Your task to perform on an android device: install app "Move to iOS" Image 0: 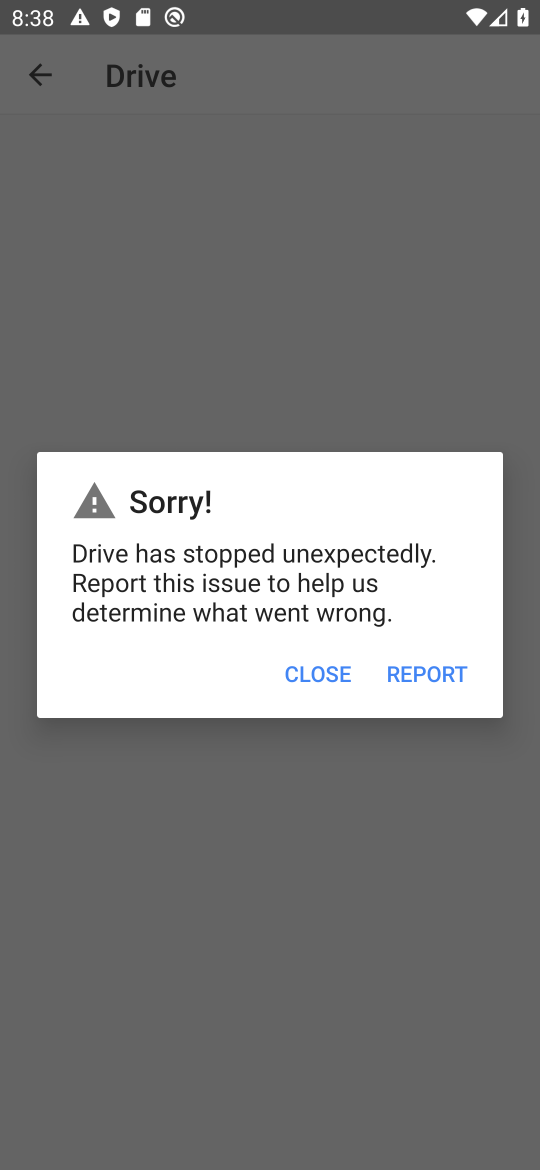
Step 0: press home button
Your task to perform on an android device: install app "Move to iOS" Image 1: 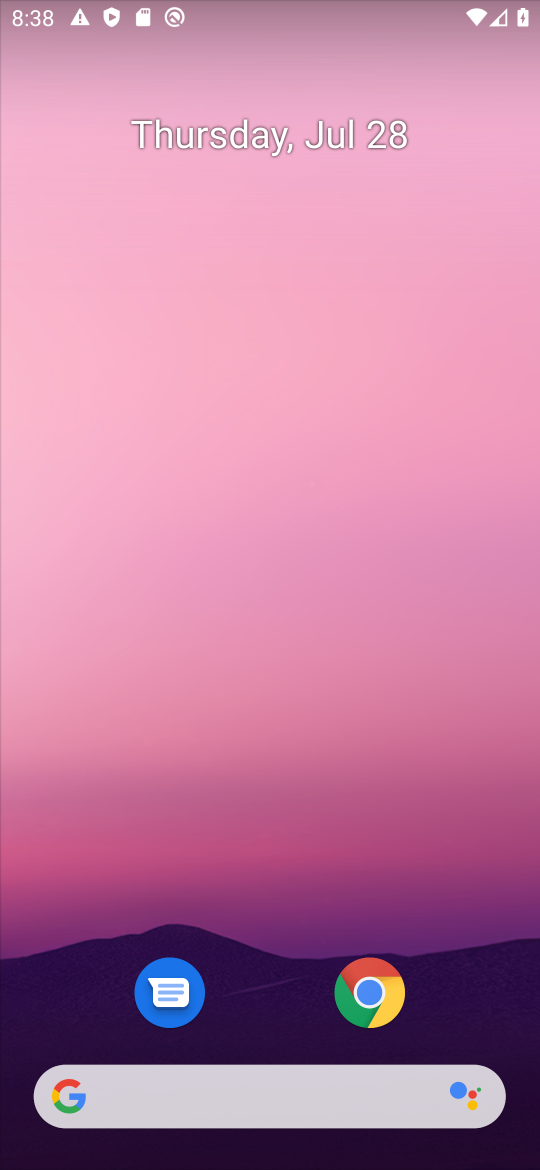
Step 1: drag from (289, 812) to (288, 52)
Your task to perform on an android device: install app "Move to iOS" Image 2: 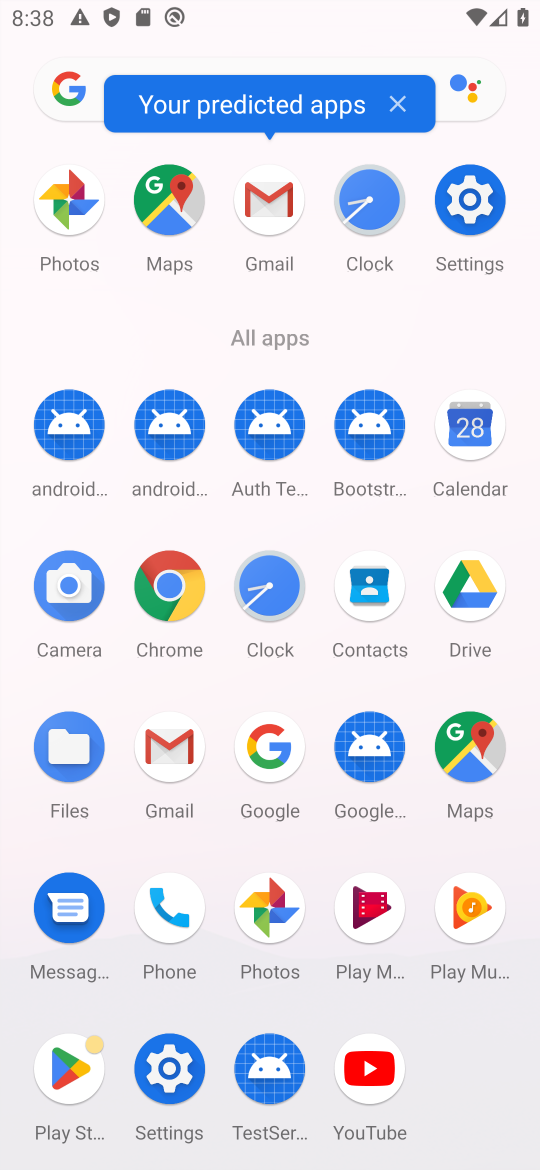
Step 2: drag from (238, 802) to (264, 410)
Your task to perform on an android device: install app "Move to iOS" Image 3: 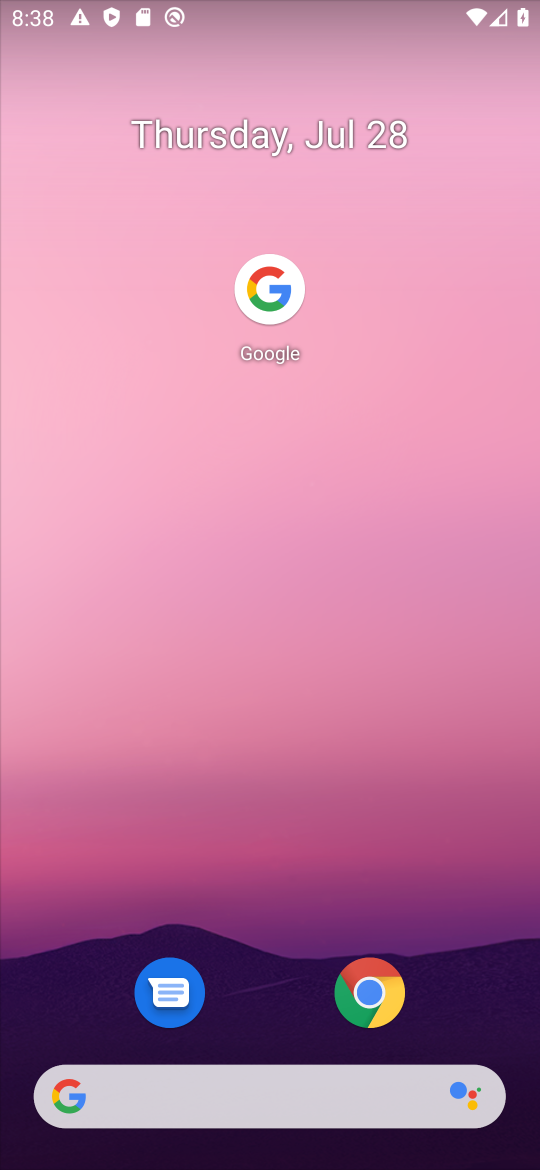
Step 3: press home button
Your task to perform on an android device: install app "Move to iOS" Image 4: 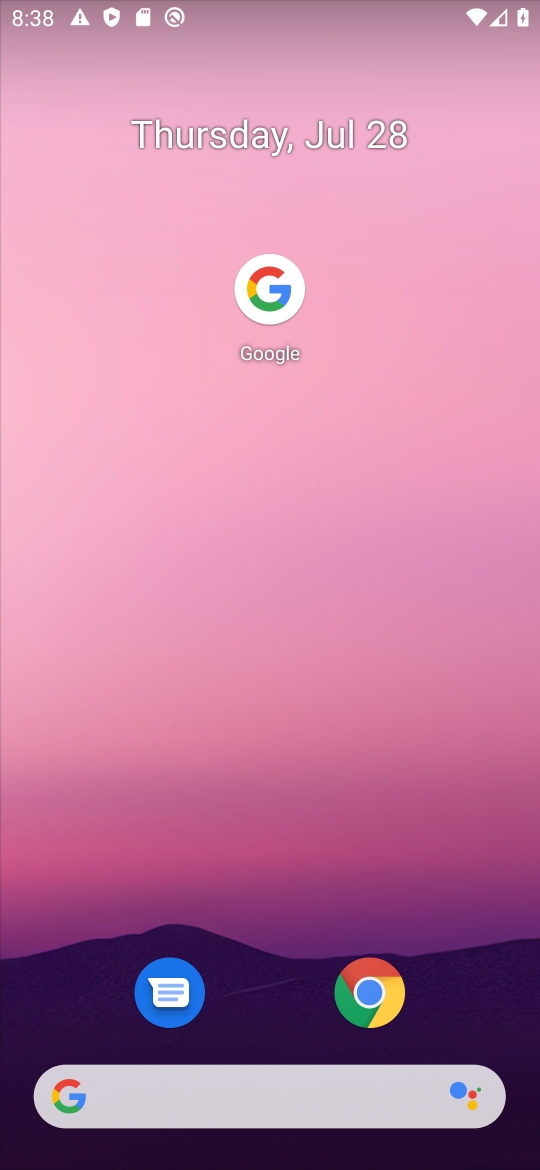
Step 4: drag from (251, 957) to (317, 147)
Your task to perform on an android device: install app "Move to iOS" Image 5: 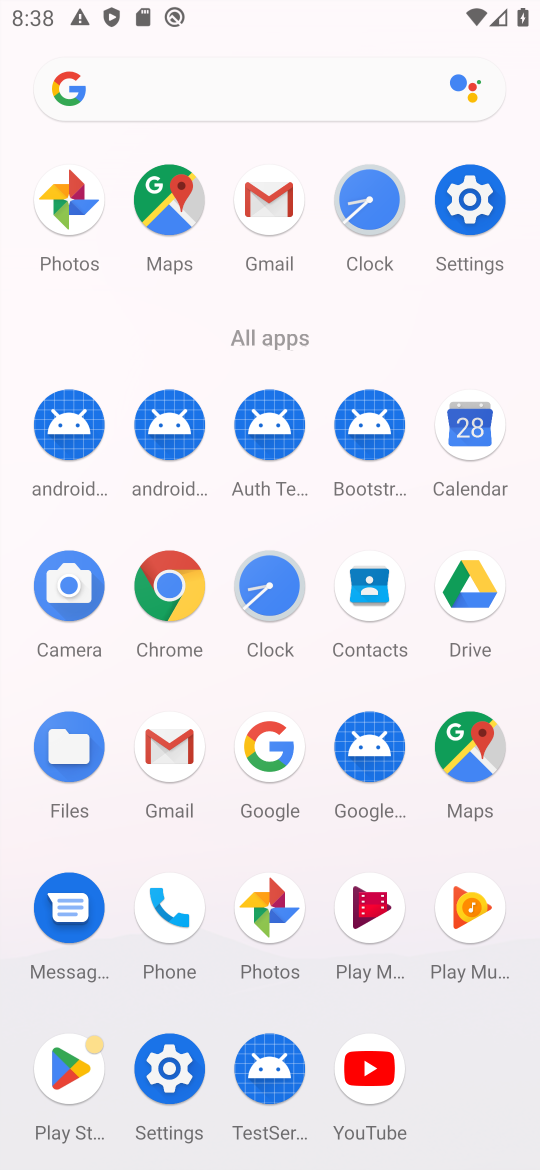
Step 5: click (76, 1061)
Your task to perform on an android device: install app "Move to iOS" Image 6: 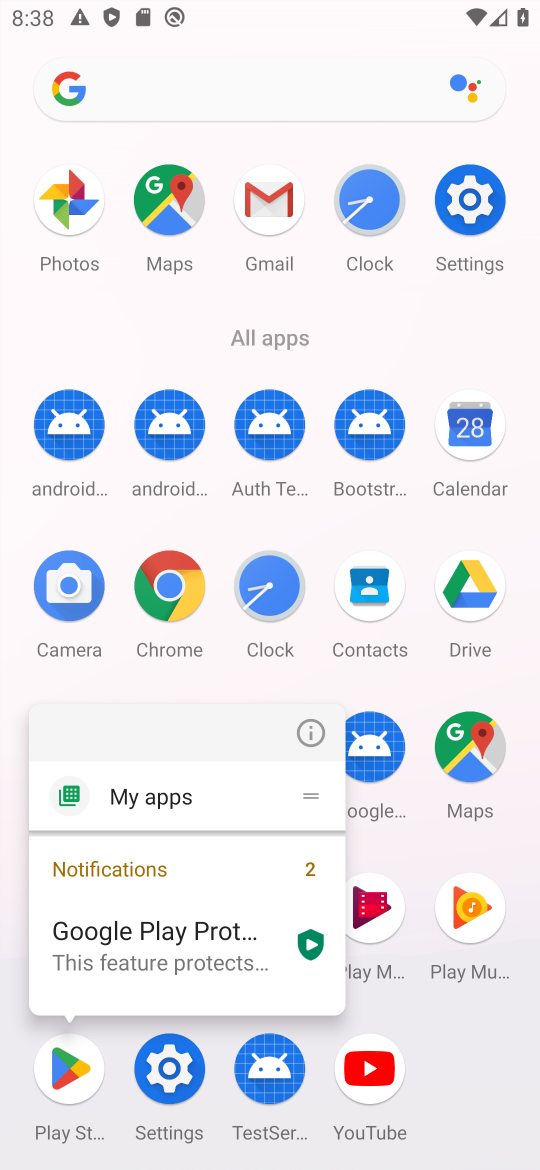
Step 6: click (74, 1064)
Your task to perform on an android device: install app "Move to iOS" Image 7: 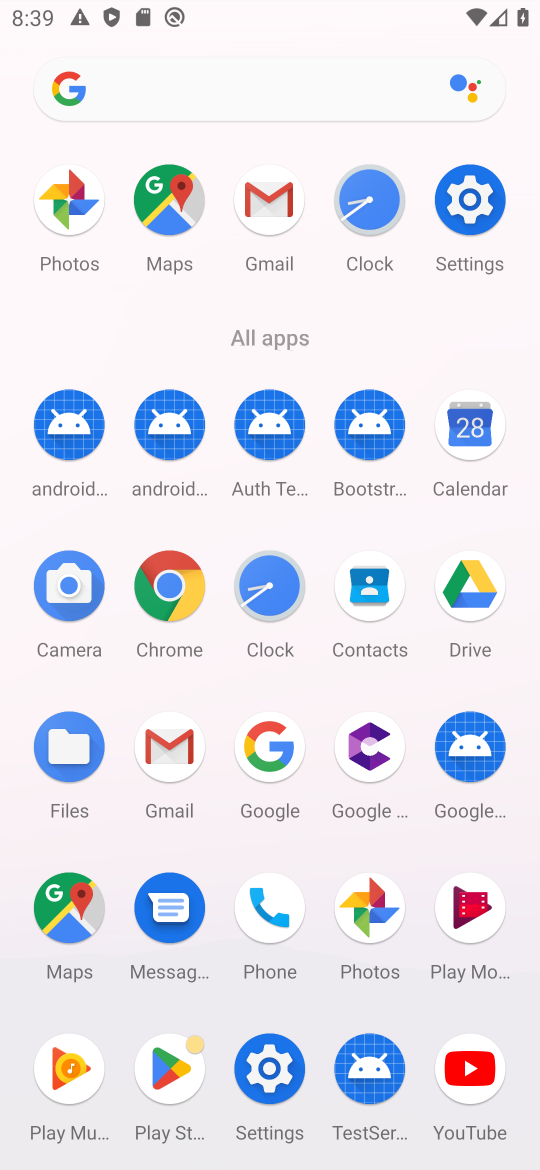
Step 7: click (182, 1068)
Your task to perform on an android device: install app "Move to iOS" Image 8: 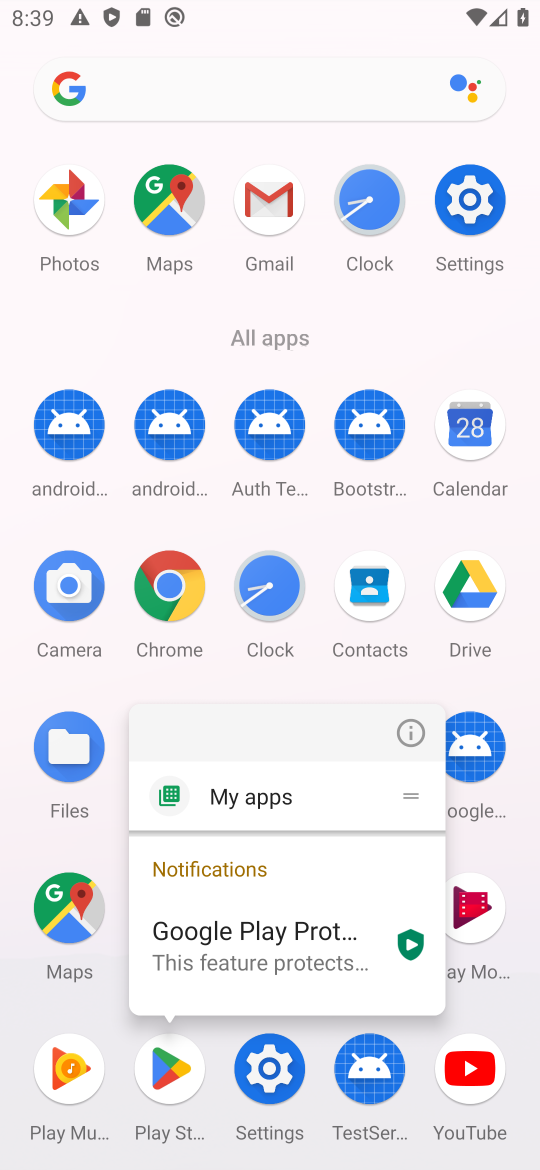
Step 8: click (182, 1068)
Your task to perform on an android device: install app "Move to iOS" Image 9: 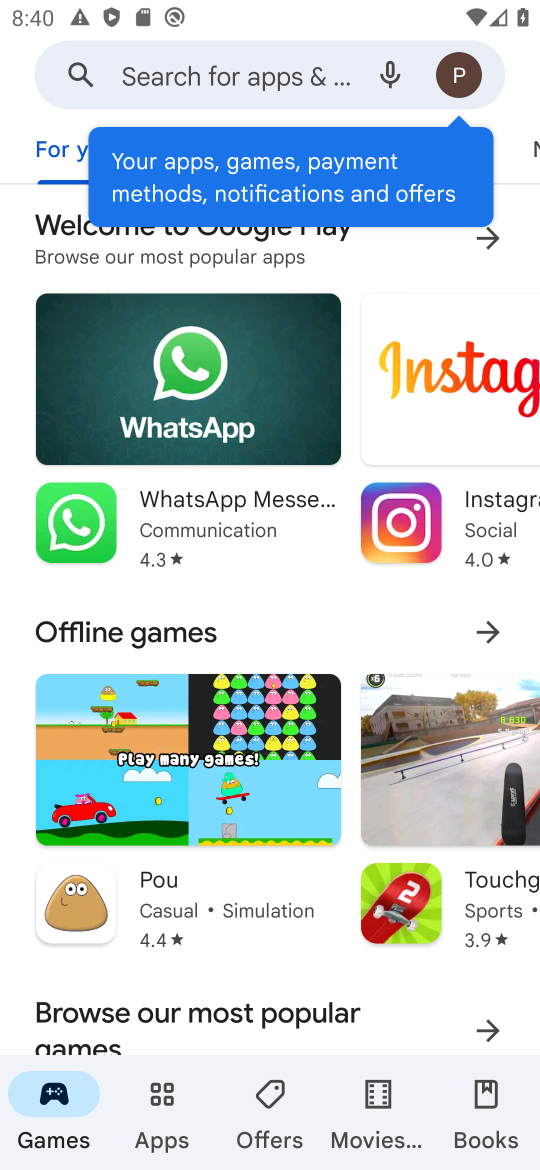
Step 9: click (296, 65)
Your task to perform on an android device: install app "Move to iOS" Image 10: 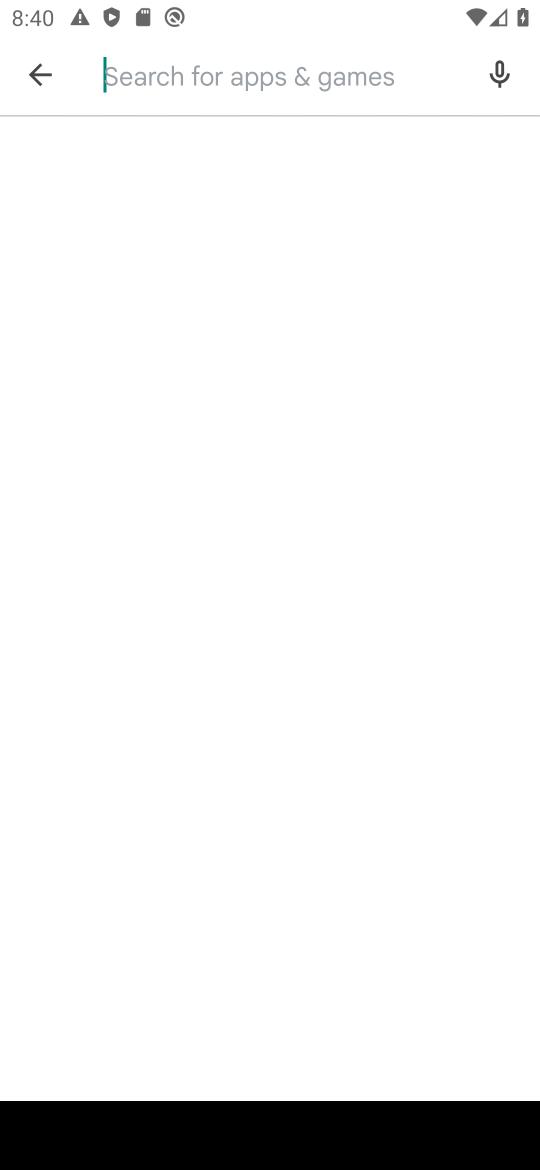
Step 10: type "move to ios"
Your task to perform on an android device: install app "Move to iOS" Image 11: 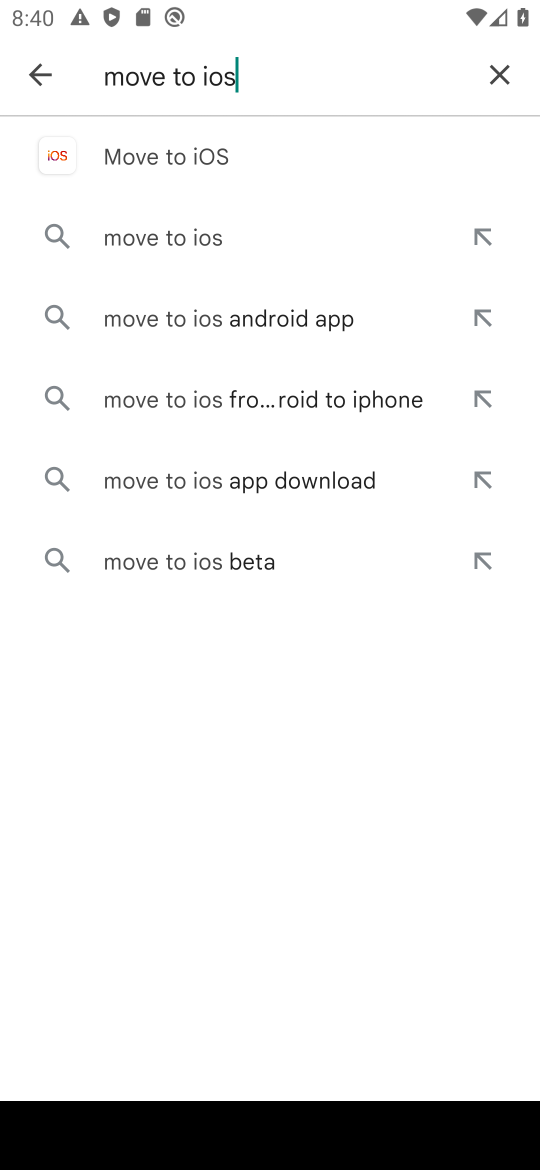
Step 11: click (215, 157)
Your task to perform on an android device: install app "Move to iOS" Image 12: 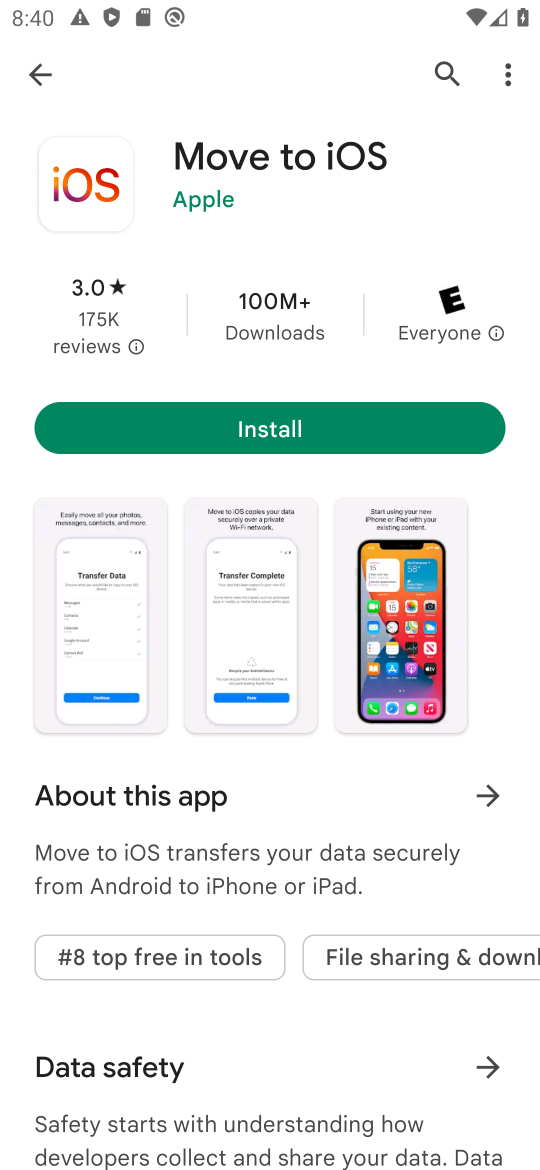
Step 12: click (364, 423)
Your task to perform on an android device: install app "Move to iOS" Image 13: 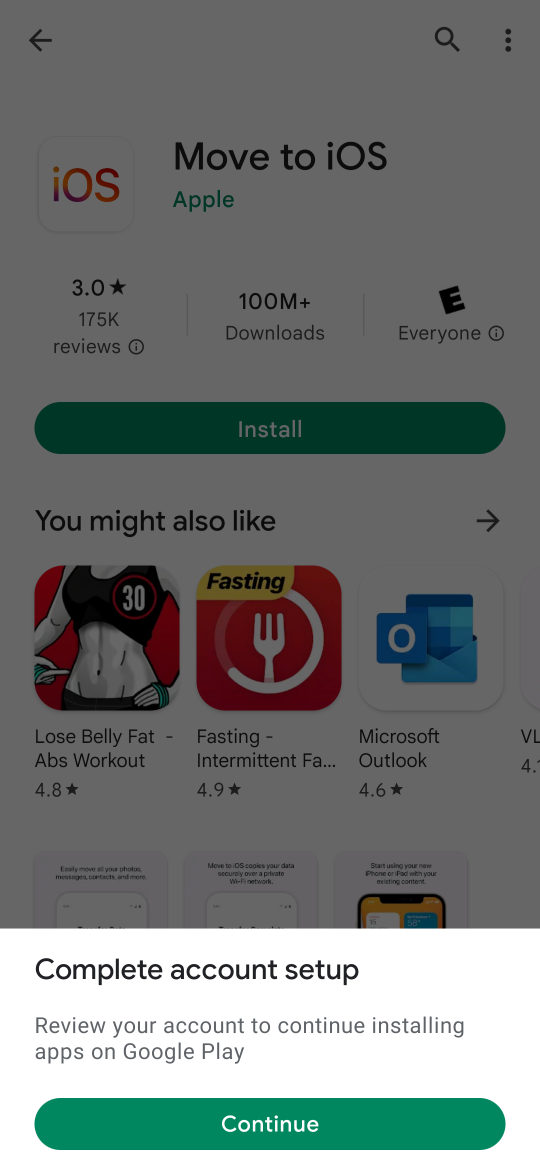
Step 13: click (464, 1130)
Your task to perform on an android device: install app "Move to iOS" Image 14: 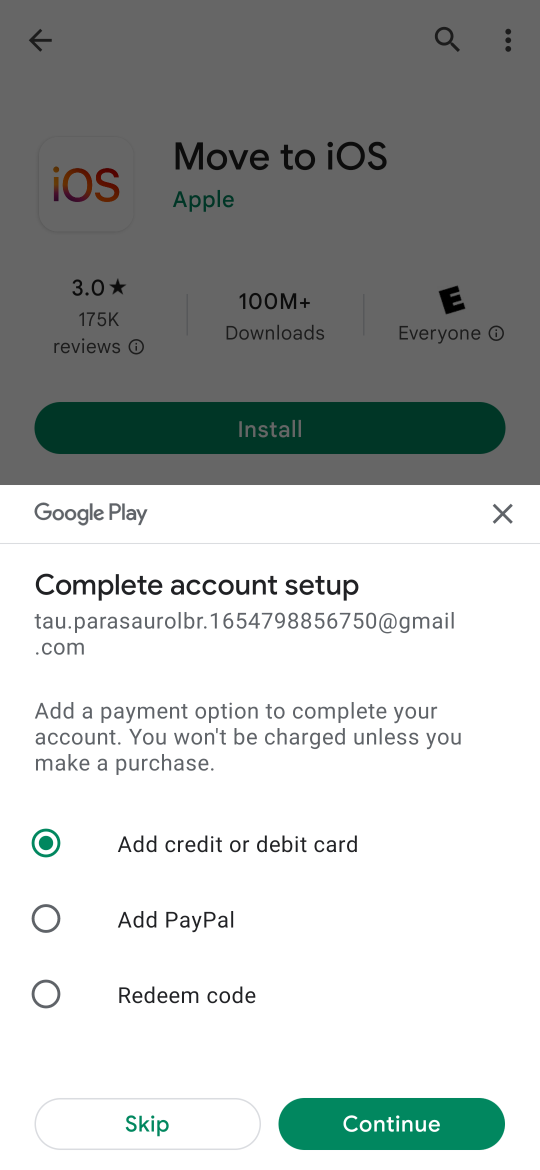
Step 14: click (228, 1130)
Your task to perform on an android device: install app "Move to iOS" Image 15: 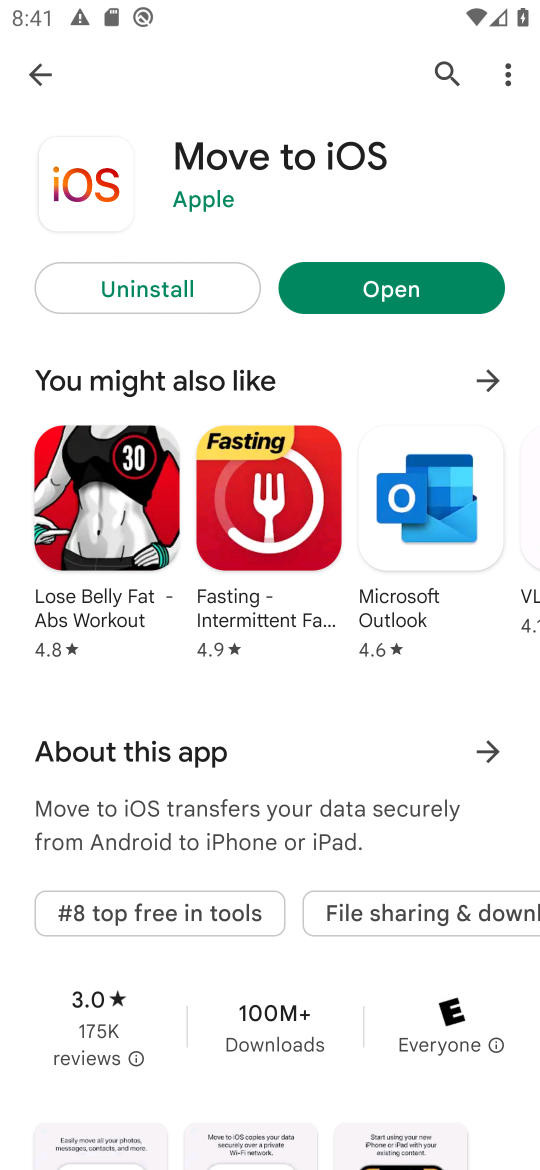
Step 15: task complete